Your task to perform on an android device: Toggle the flashlight Image 0: 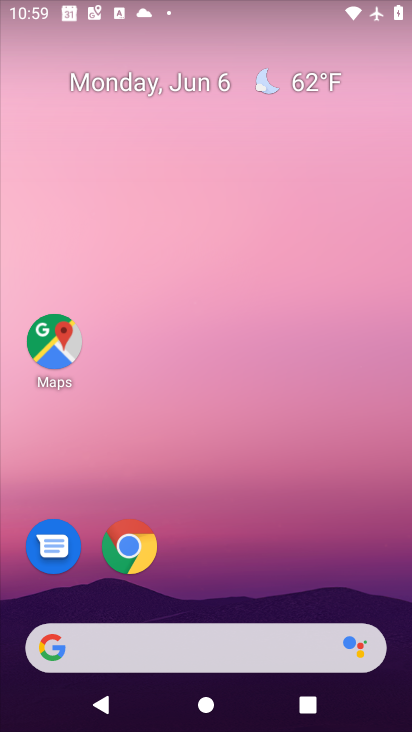
Step 0: drag from (226, 9) to (209, 470)
Your task to perform on an android device: Toggle the flashlight Image 1: 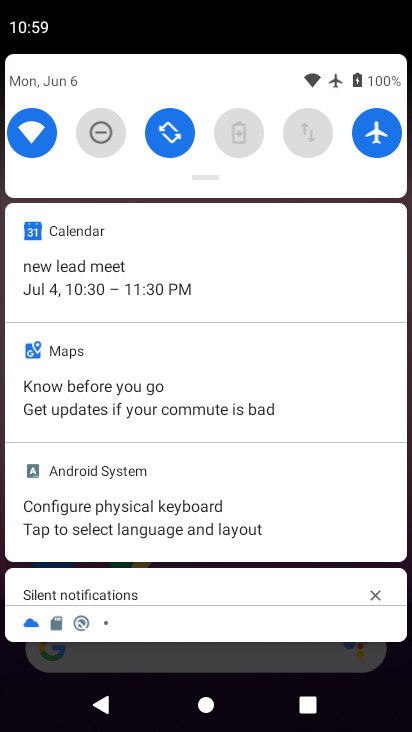
Step 1: drag from (204, 183) to (173, 582)
Your task to perform on an android device: Toggle the flashlight Image 2: 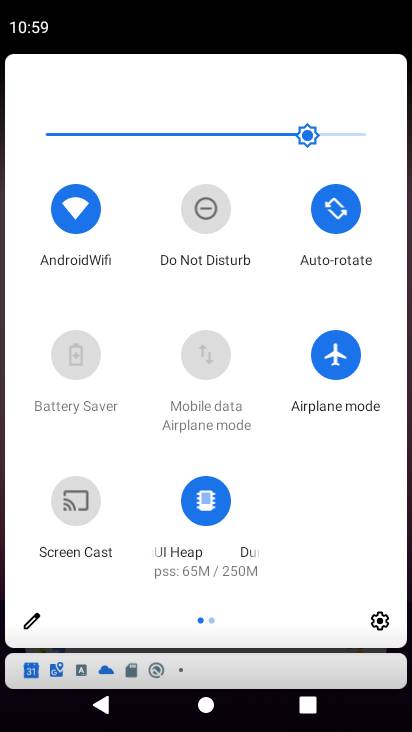
Step 2: click (26, 618)
Your task to perform on an android device: Toggle the flashlight Image 3: 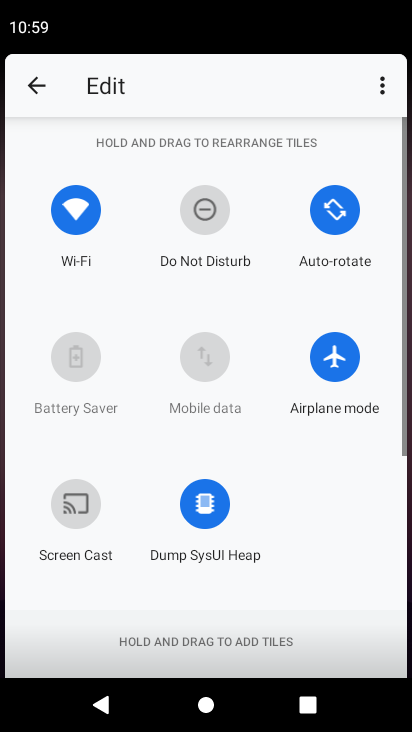
Step 3: task complete